Your task to perform on an android device: toggle notification dots Image 0: 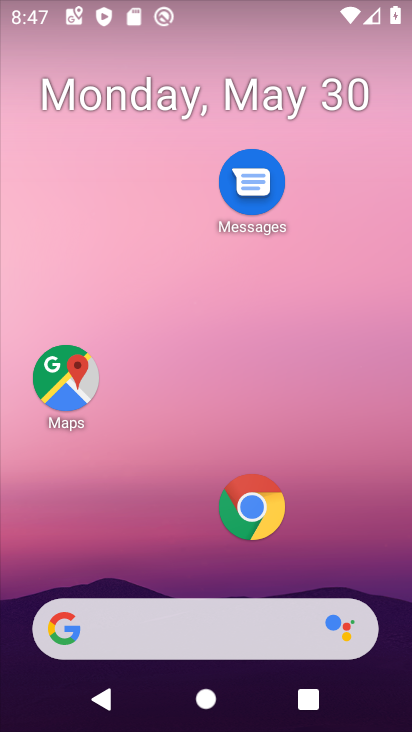
Step 0: drag from (204, 545) to (184, 104)
Your task to perform on an android device: toggle notification dots Image 1: 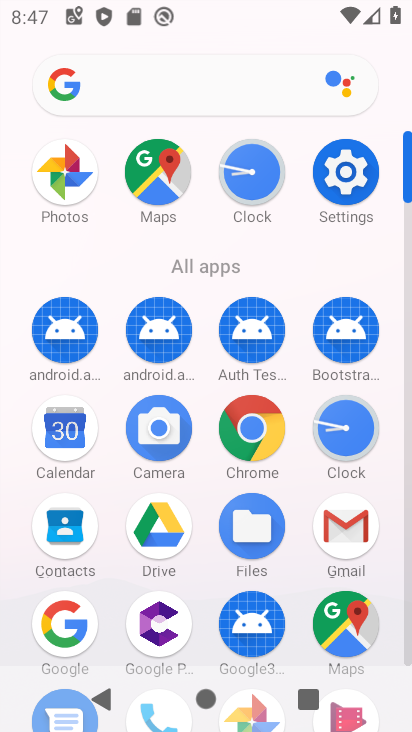
Step 1: click (68, 628)
Your task to perform on an android device: toggle notification dots Image 2: 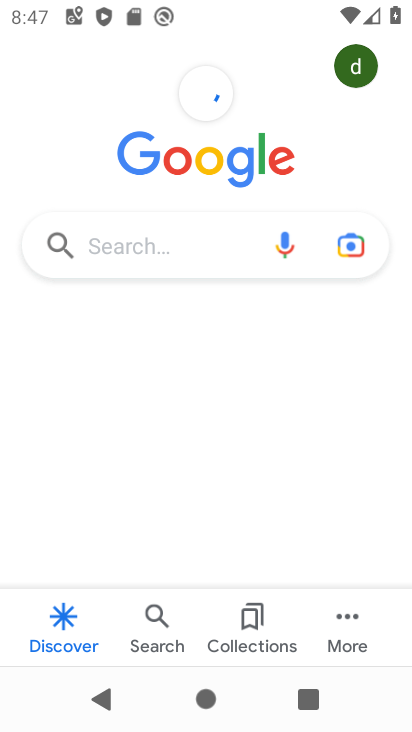
Step 2: click (207, 255)
Your task to perform on an android device: toggle notification dots Image 3: 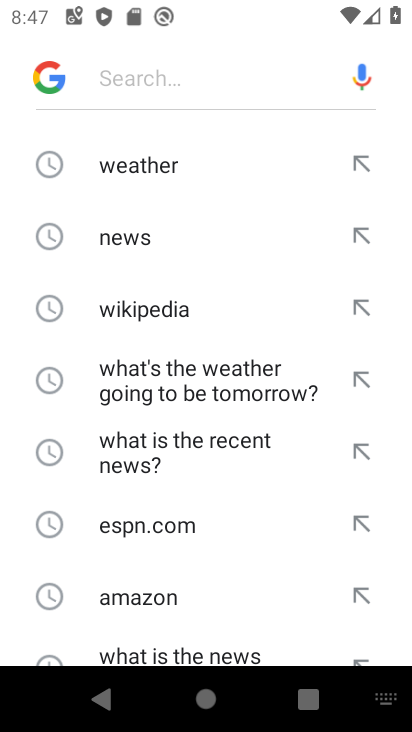
Step 3: type "recent news"
Your task to perform on an android device: toggle notification dots Image 4: 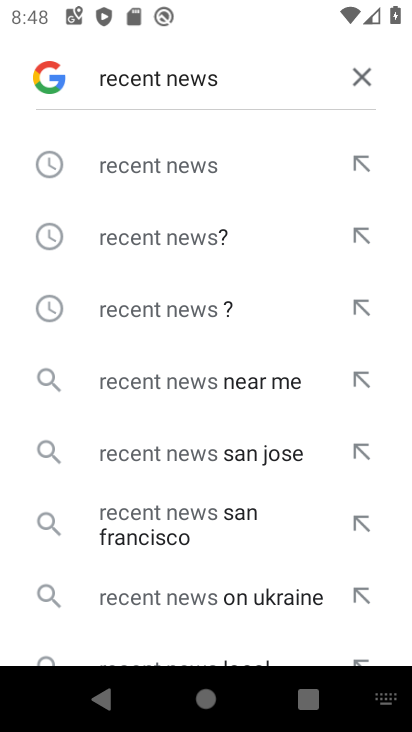
Step 4: click (186, 166)
Your task to perform on an android device: toggle notification dots Image 5: 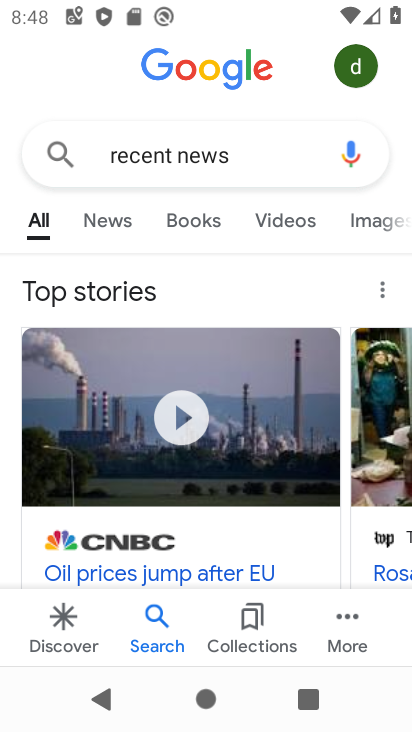
Step 5: task complete